Your task to perform on an android device: turn off smart reply in the gmail app Image 0: 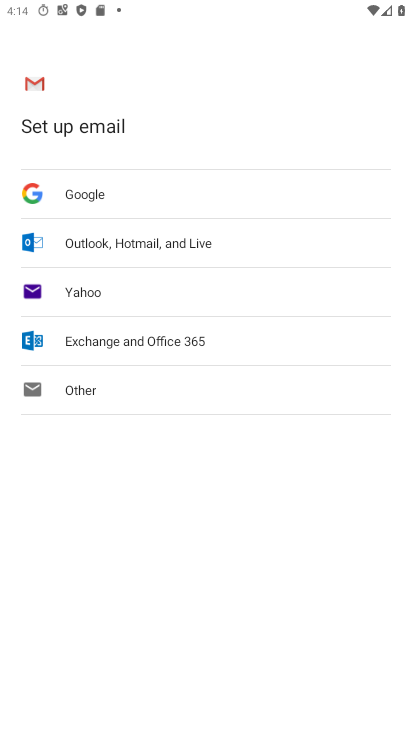
Step 0: press home button
Your task to perform on an android device: turn off smart reply in the gmail app Image 1: 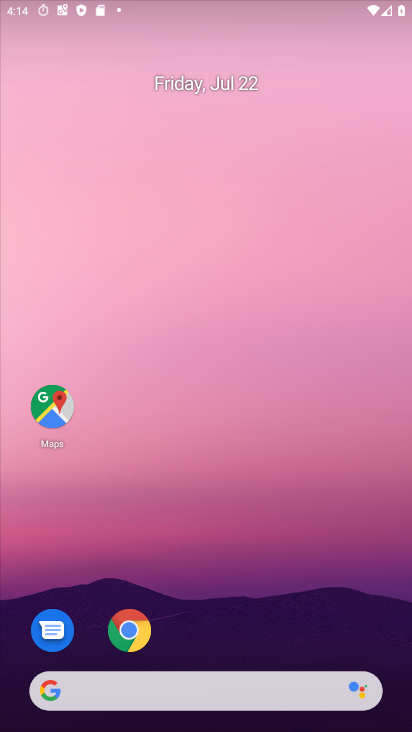
Step 1: drag from (158, 705) to (91, 77)
Your task to perform on an android device: turn off smart reply in the gmail app Image 2: 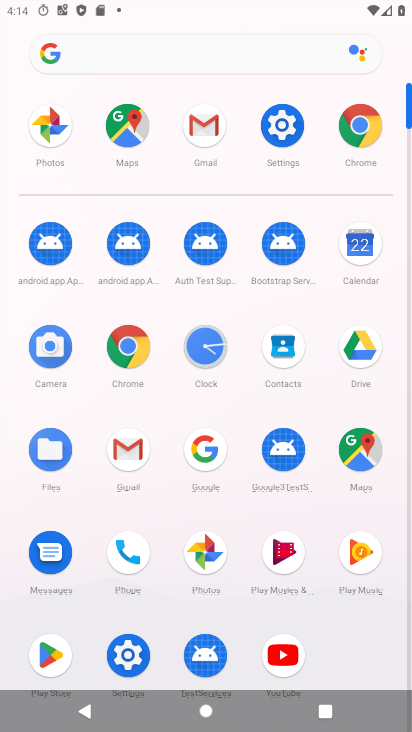
Step 2: click (136, 457)
Your task to perform on an android device: turn off smart reply in the gmail app Image 3: 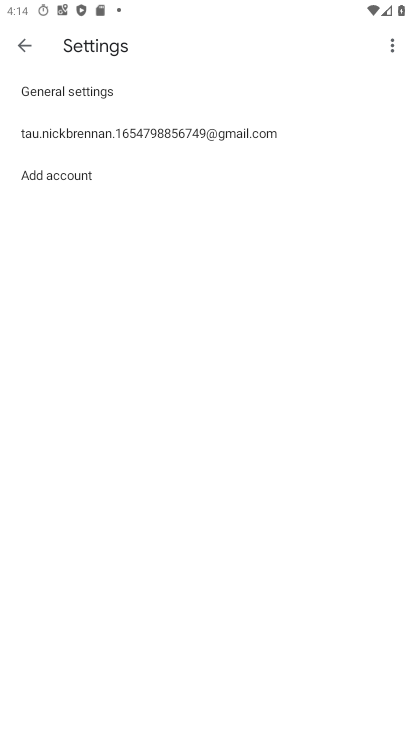
Step 3: click (192, 129)
Your task to perform on an android device: turn off smart reply in the gmail app Image 4: 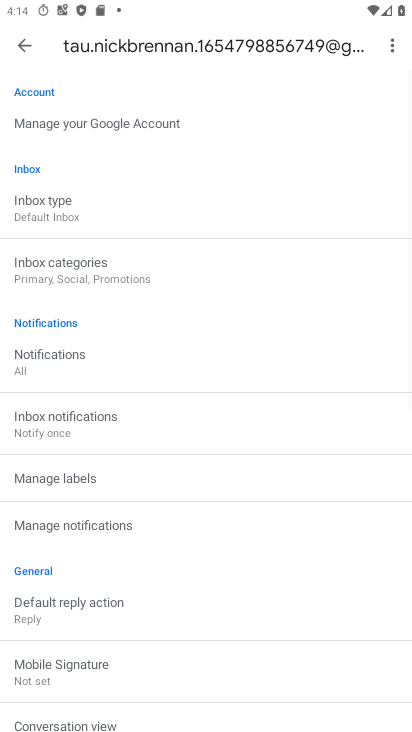
Step 4: drag from (68, 501) to (56, 107)
Your task to perform on an android device: turn off smart reply in the gmail app Image 5: 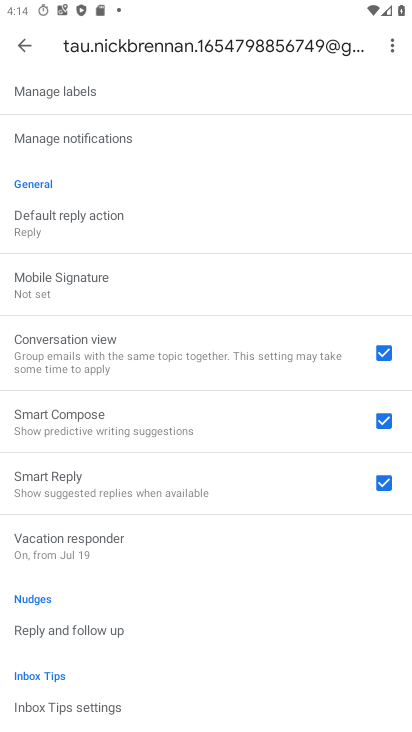
Step 5: click (382, 477)
Your task to perform on an android device: turn off smart reply in the gmail app Image 6: 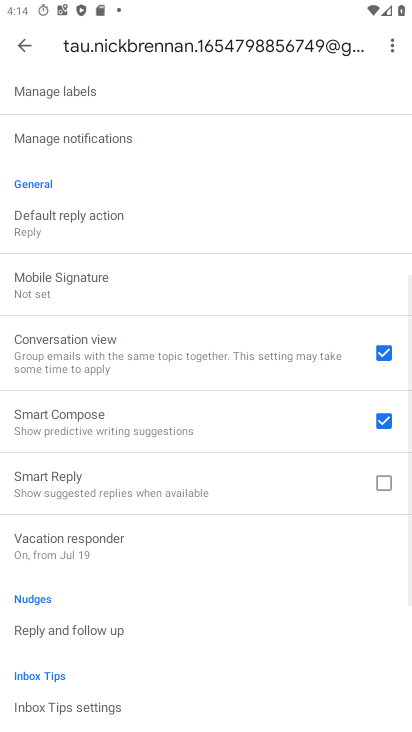
Step 6: task complete